Your task to perform on an android device: Open the web browser Image 0: 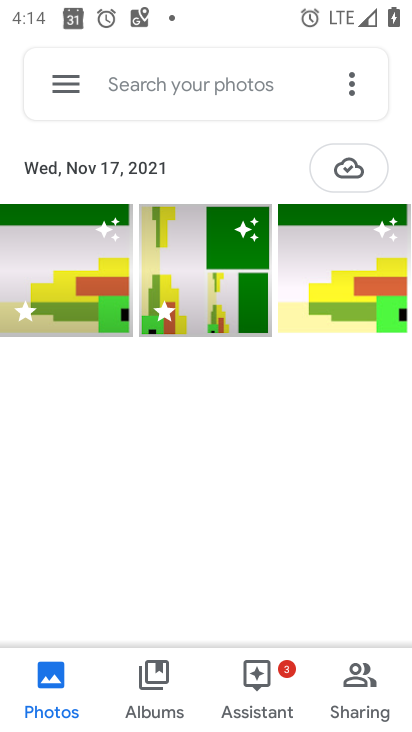
Step 0: press home button
Your task to perform on an android device: Open the web browser Image 1: 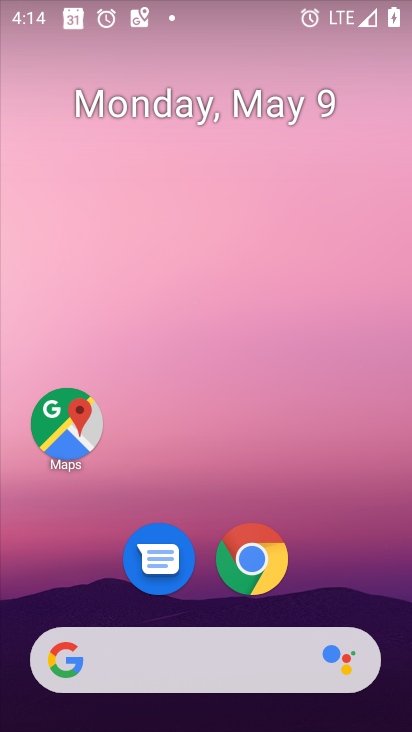
Step 1: drag from (213, 719) to (211, 211)
Your task to perform on an android device: Open the web browser Image 2: 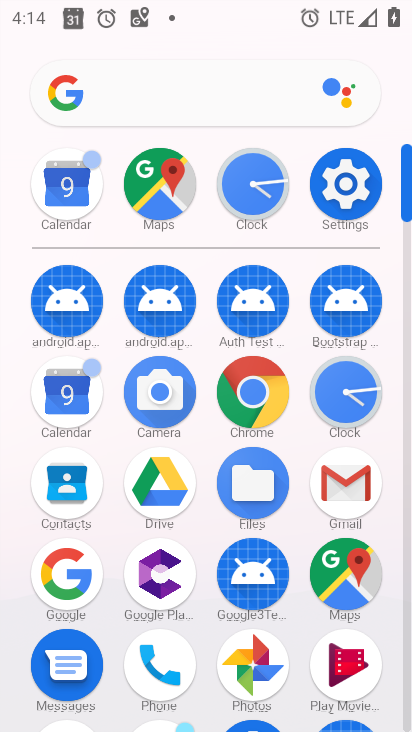
Step 2: drag from (297, 695) to (293, 359)
Your task to perform on an android device: Open the web browser Image 3: 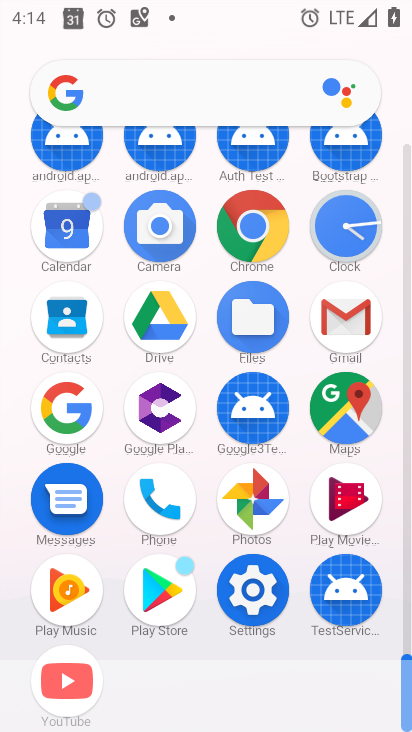
Step 3: click (258, 223)
Your task to perform on an android device: Open the web browser Image 4: 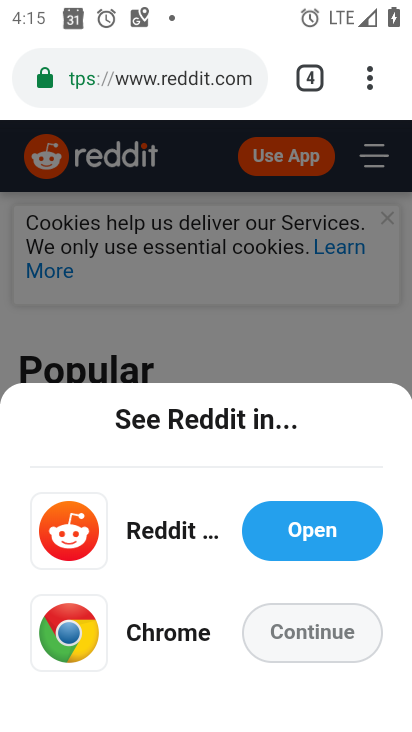
Step 4: task complete